Your task to perform on an android device: Open Reddit.com Image 0: 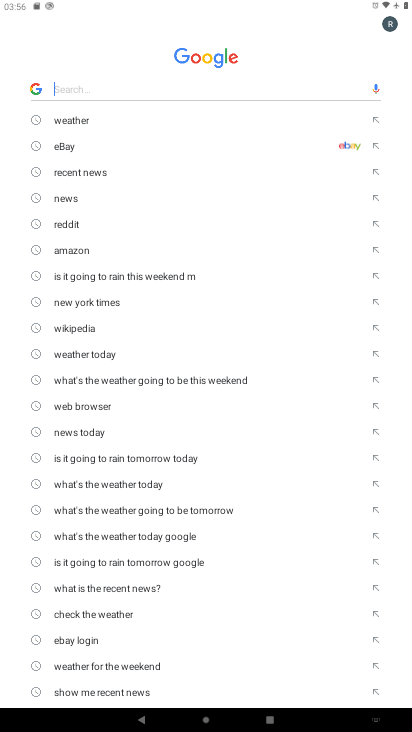
Step 0: press home button
Your task to perform on an android device: Open Reddit.com Image 1: 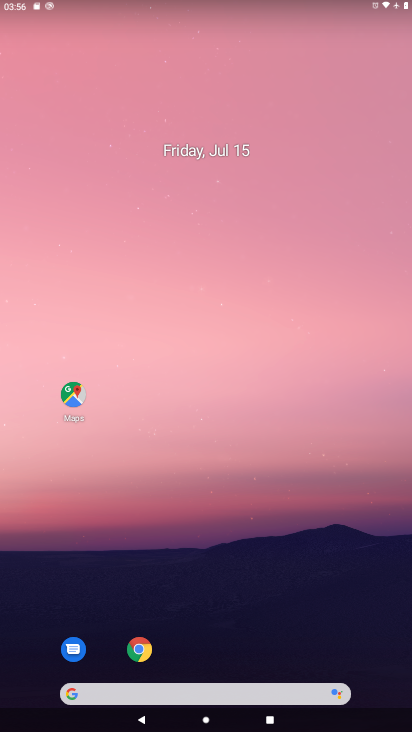
Step 1: click (140, 649)
Your task to perform on an android device: Open Reddit.com Image 2: 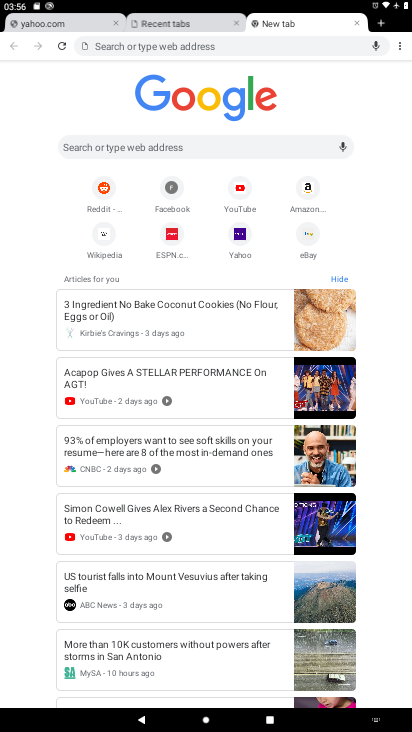
Step 2: click (135, 141)
Your task to perform on an android device: Open Reddit.com Image 3: 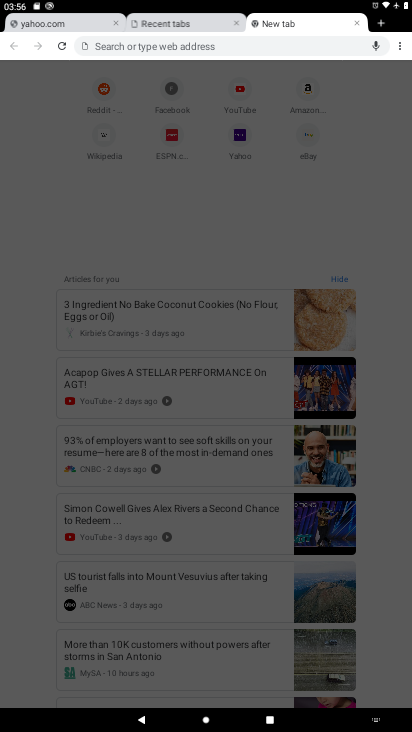
Step 3: type "Reddit.com"
Your task to perform on an android device: Open Reddit.com Image 4: 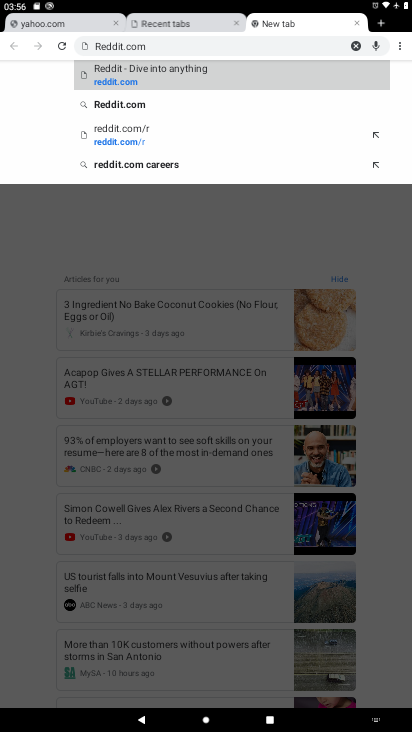
Step 4: click (125, 72)
Your task to perform on an android device: Open Reddit.com Image 5: 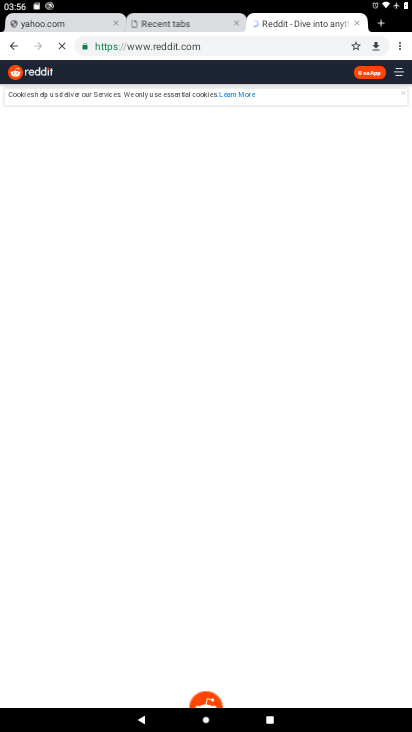
Step 5: task complete